Your task to perform on an android device: all mails in gmail Image 0: 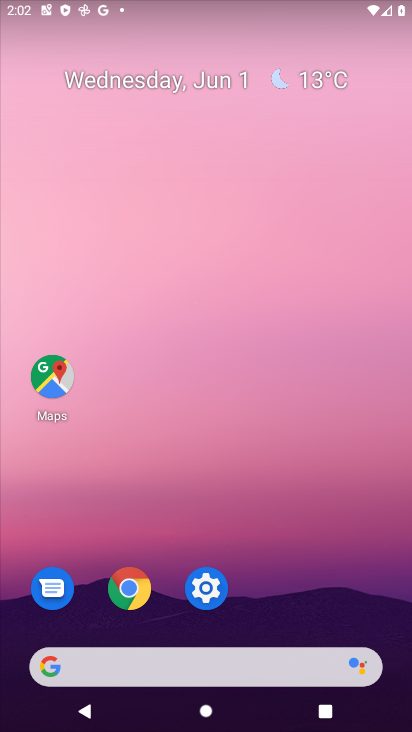
Step 0: drag from (228, 687) to (200, 154)
Your task to perform on an android device: all mails in gmail Image 1: 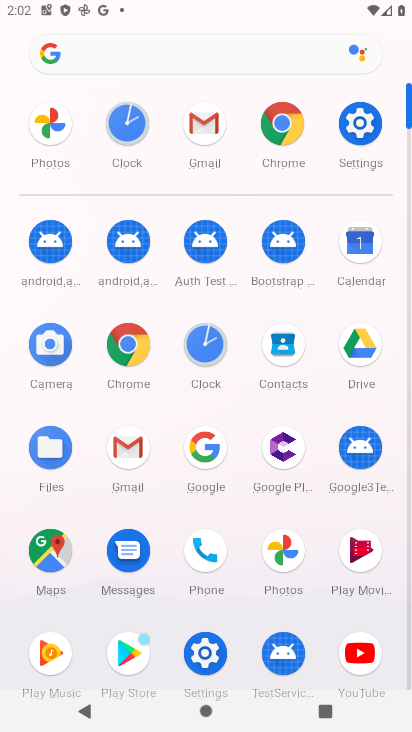
Step 1: click (115, 433)
Your task to perform on an android device: all mails in gmail Image 2: 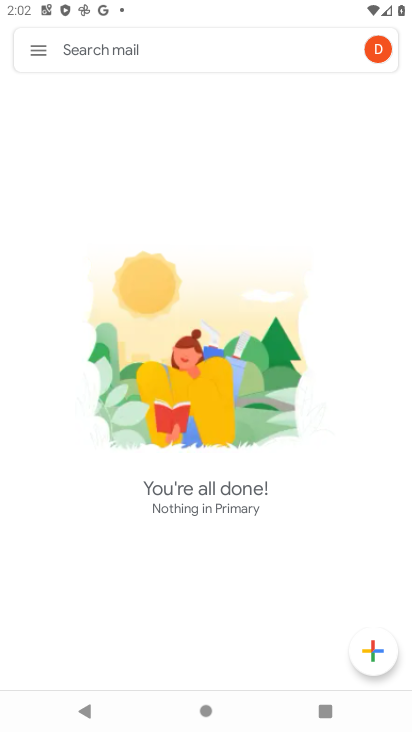
Step 2: click (48, 45)
Your task to perform on an android device: all mails in gmail Image 3: 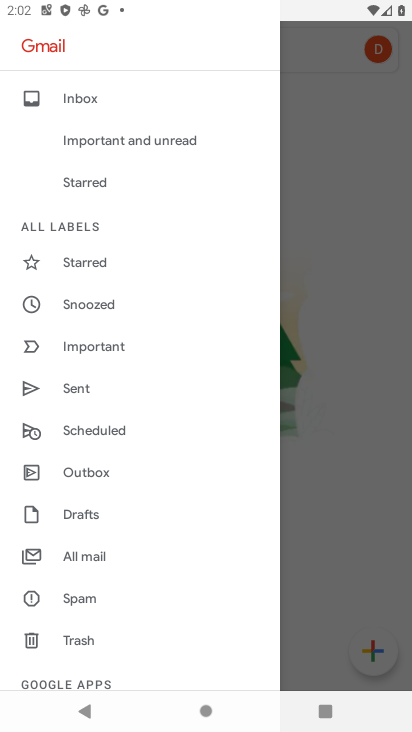
Step 3: click (84, 553)
Your task to perform on an android device: all mails in gmail Image 4: 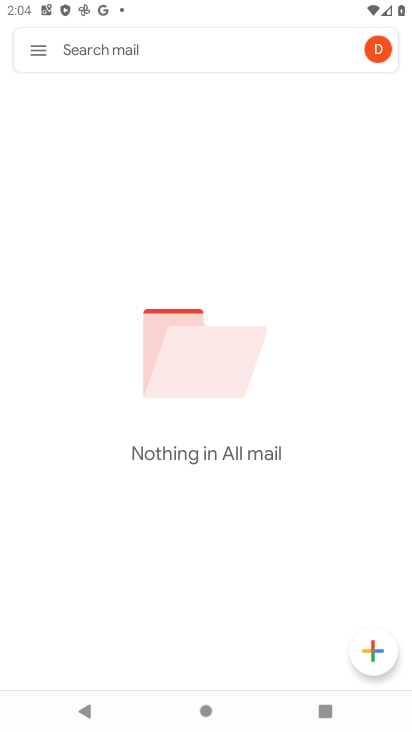
Step 4: task complete